Your task to perform on an android device: check battery use Image 0: 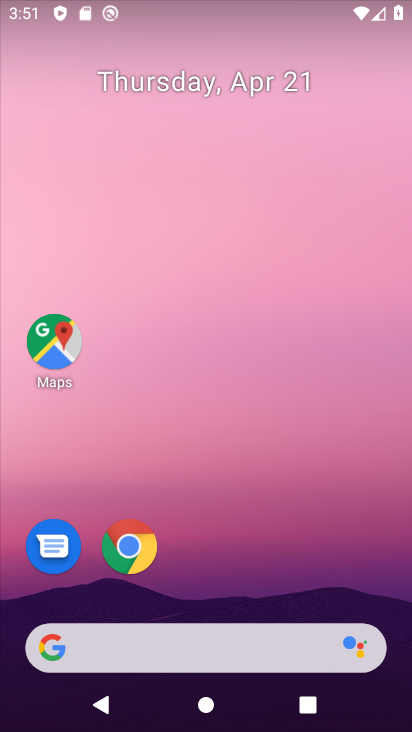
Step 0: drag from (208, 509) to (345, 120)
Your task to perform on an android device: check battery use Image 1: 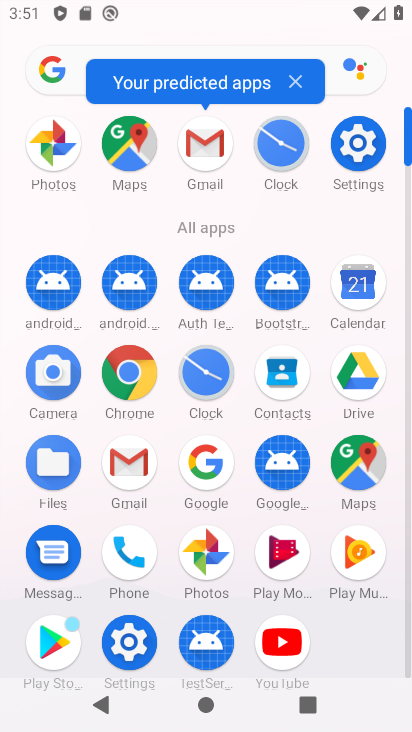
Step 1: click (352, 144)
Your task to perform on an android device: check battery use Image 2: 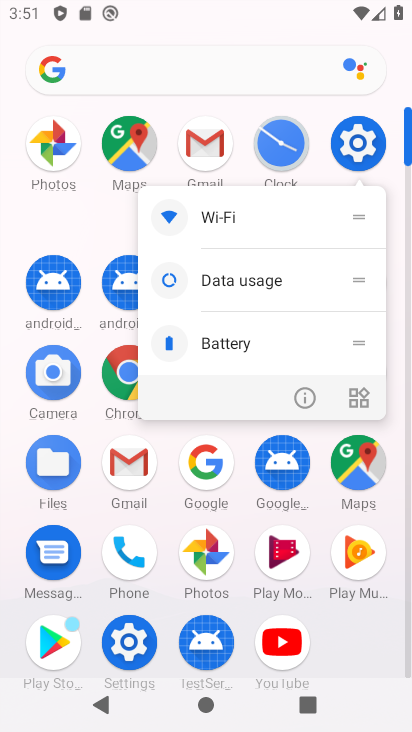
Step 2: click (357, 145)
Your task to perform on an android device: check battery use Image 3: 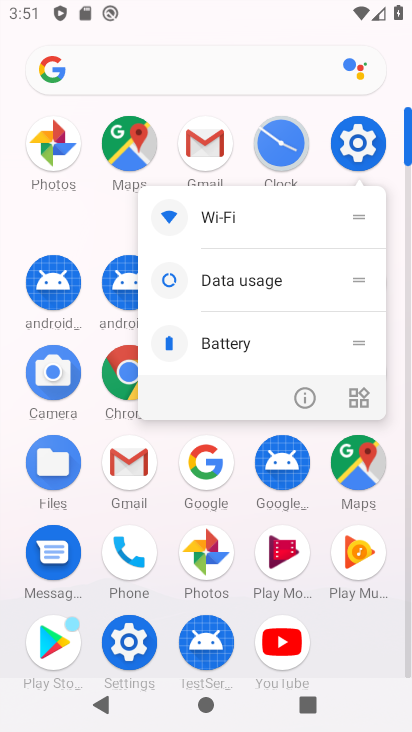
Step 3: click (363, 152)
Your task to perform on an android device: check battery use Image 4: 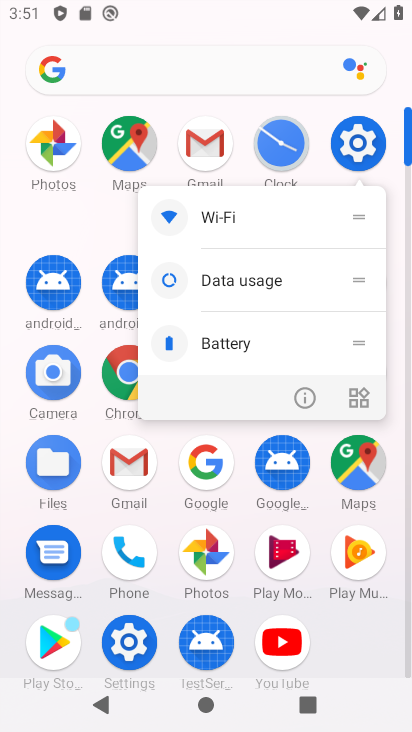
Step 4: click (382, 136)
Your task to perform on an android device: check battery use Image 5: 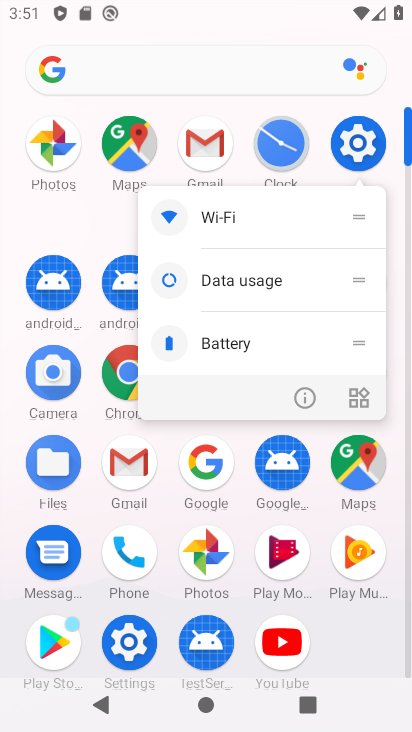
Step 5: click (372, 156)
Your task to perform on an android device: check battery use Image 6: 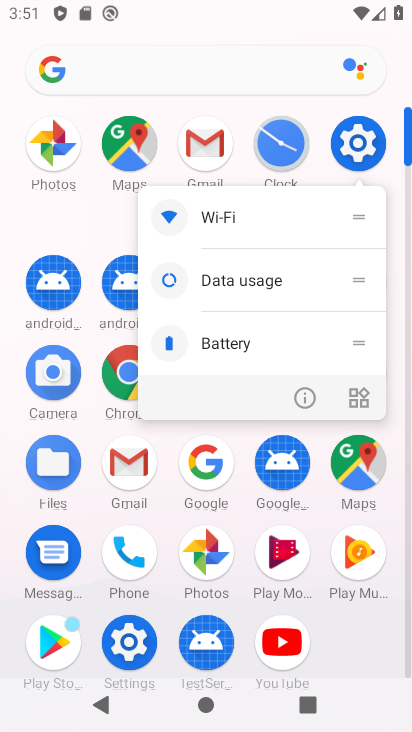
Step 6: click (352, 138)
Your task to perform on an android device: check battery use Image 7: 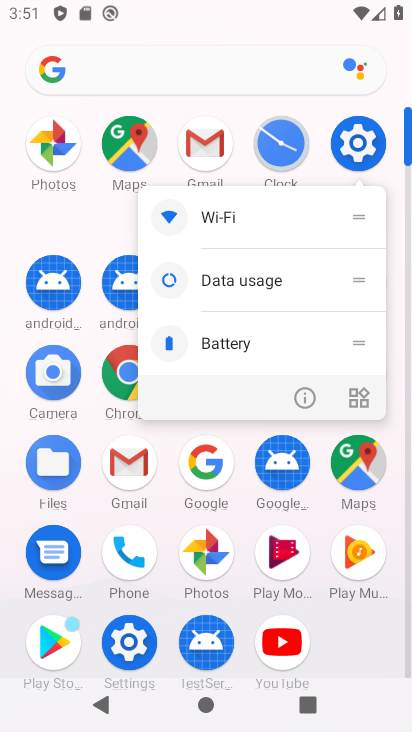
Step 7: click (352, 138)
Your task to perform on an android device: check battery use Image 8: 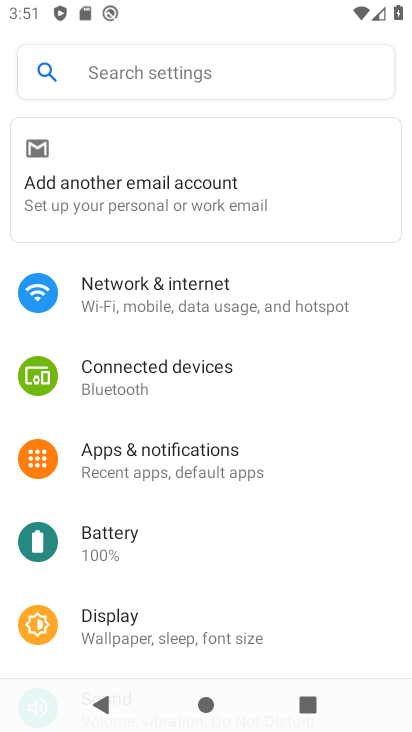
Step 8: click (184, 550)
Your task to perform on an android device: check battery use Image 9: 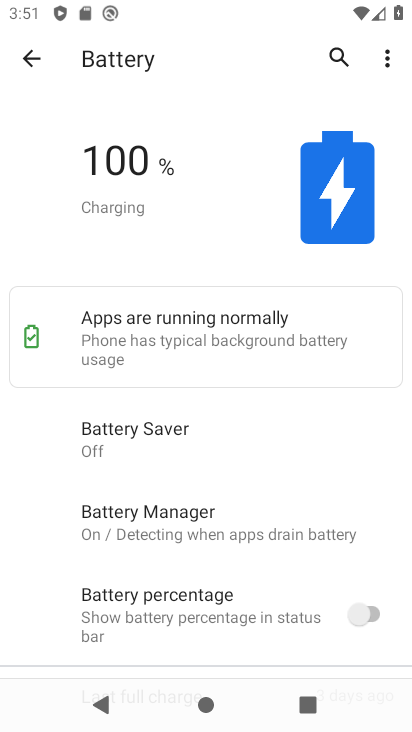
Step 9: click (378, 61)
Your task to perform on an android device: check battery use Image 10: 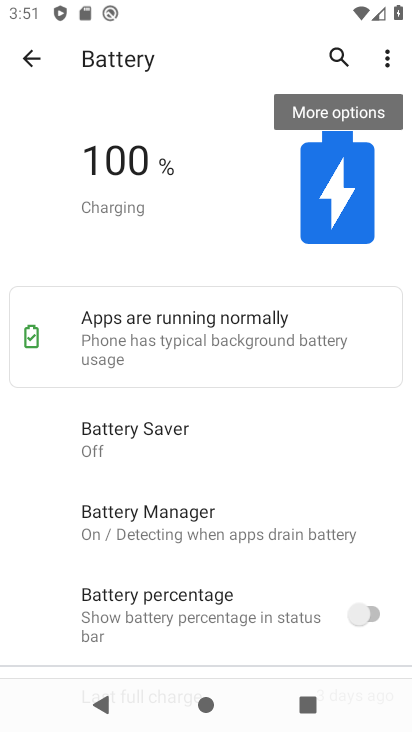
Step 10: click (379, 107)
Your task to perform on an android device: check battery use Image 11: 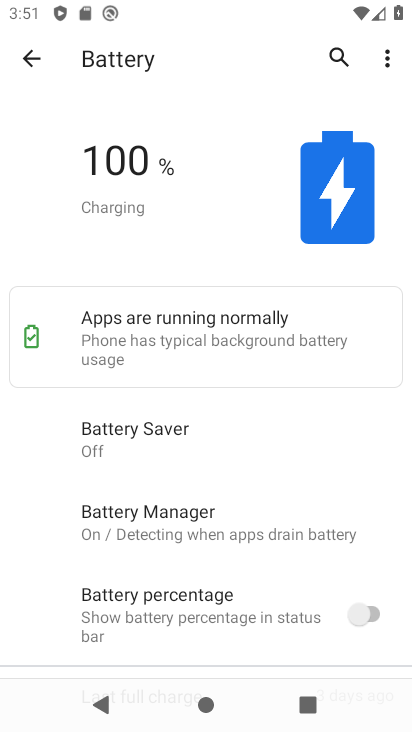
Step 11: click (391, 58)
Your task to perform on an android device: check battery use Image 12: 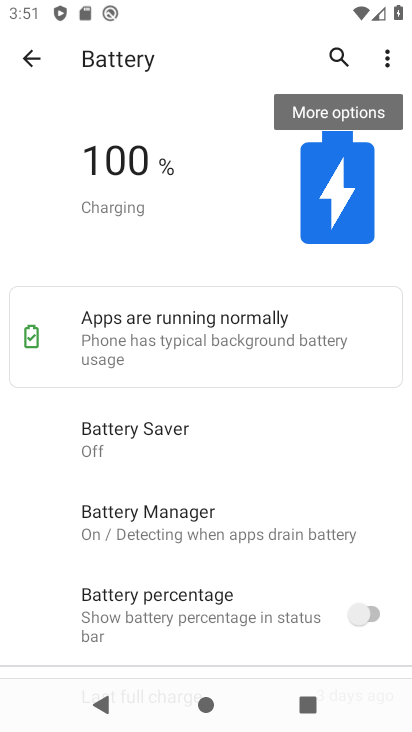
Step 12: click (369, 111)
Your task to perform on an android device: check battery use Image 13: 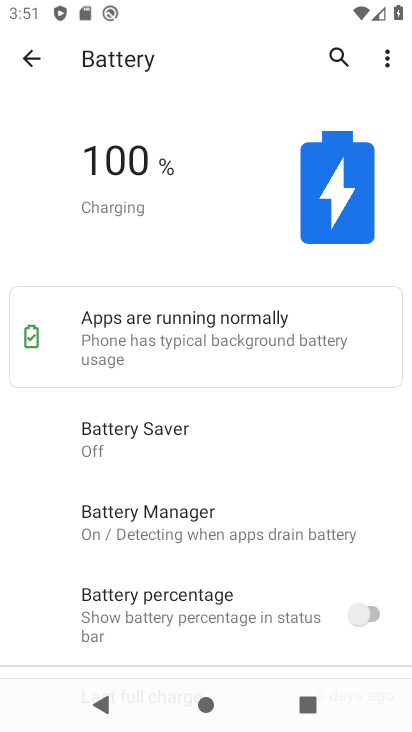
Step 13: click (389, 54)
Your task to perform on an android device: check battery use Image 14: 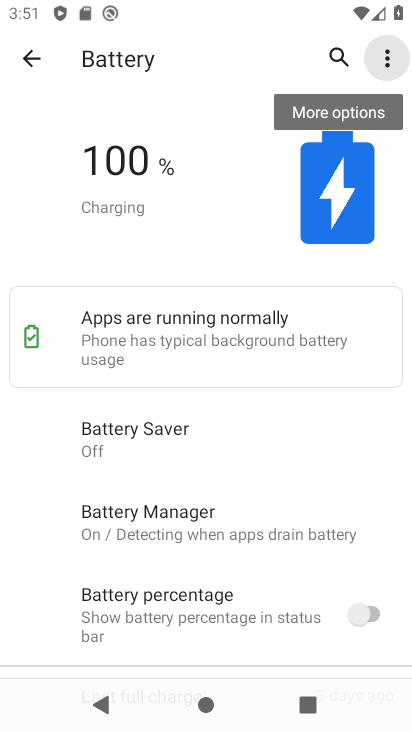
Step 14: click (387, 109)
Your task to perform on an android device: check battery use Image 15: 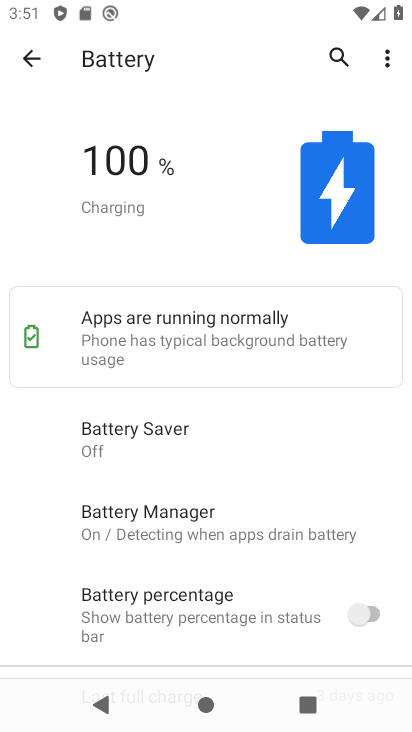
Step 15: click (394, 65)
Your task to perform on an android device: check battery use Image 16: 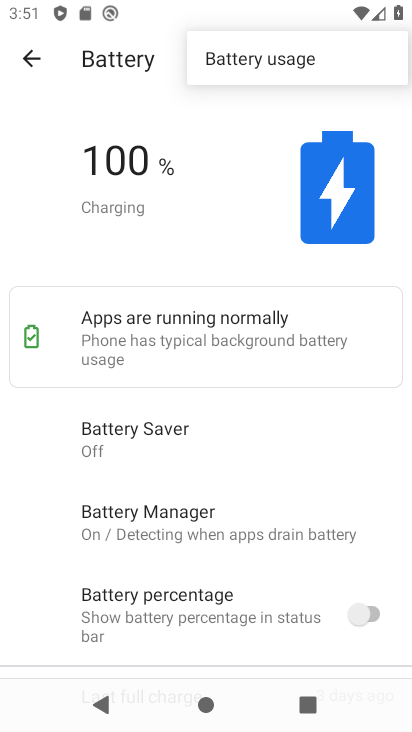
Step 16: click (392, 62)
Your task to perform on an android device: check battery use Image 17: 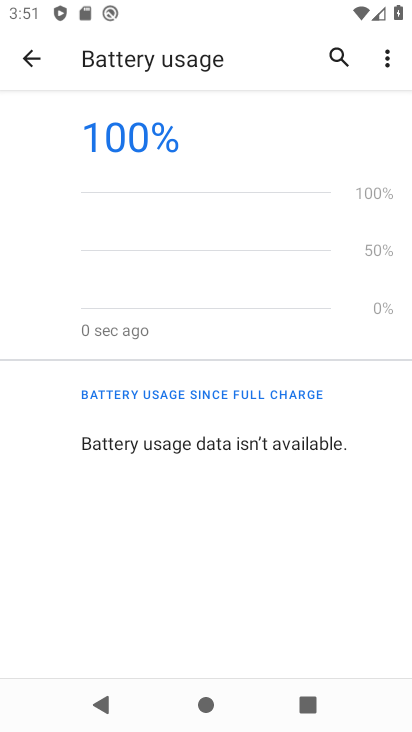
Step 17: task complete